Your task to perform on an android device: What's the weather going to be tomorrow? Image 0: 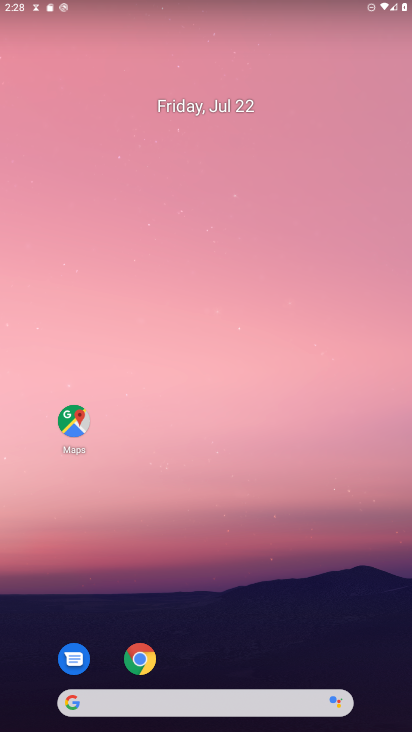
Step 0: drag from (303, 600) to (223, 56)
Your task to perform on an android device: What's the weather going to be tomorrow? Image 1: 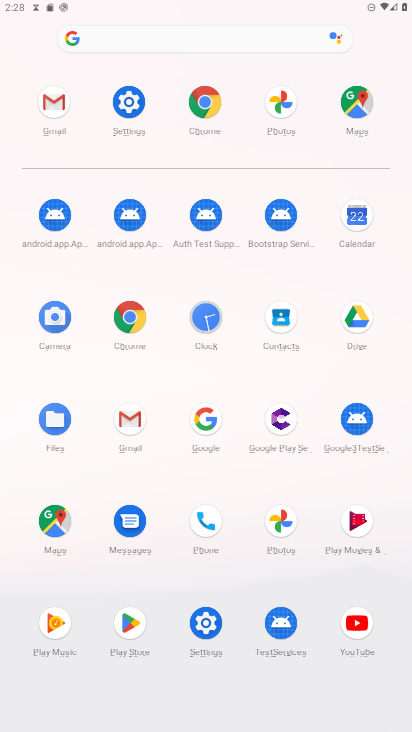
Step 1: click (353, 225)
Your task to perform on an android device: What's the weather going to be tomorrow? Image 2: 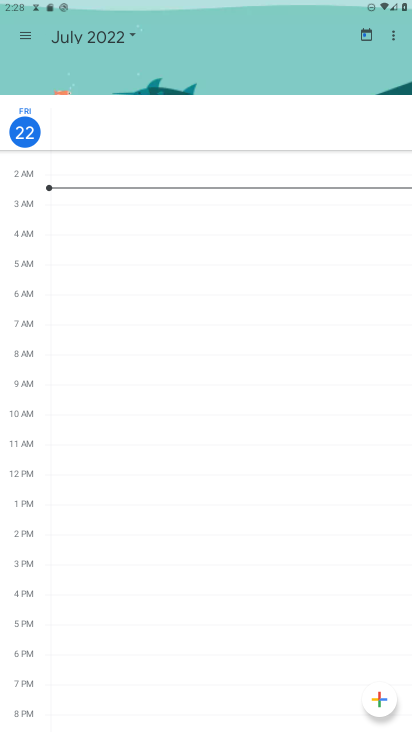
Step 2: click (92, 38)
Your task to perform on an android device: What's the weather going to be tomorrow? Image 3: 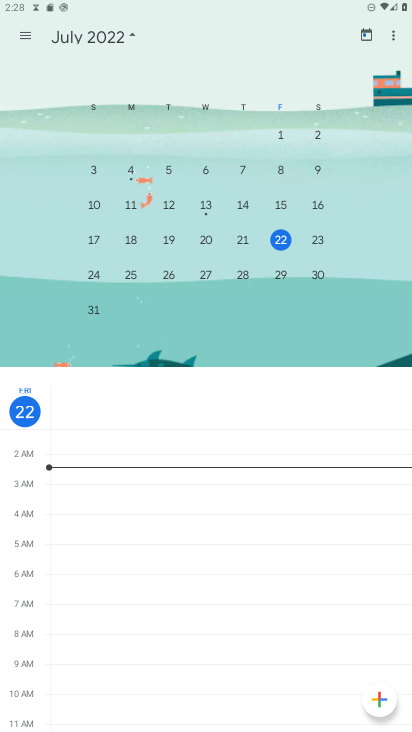
Step 3: click (316, 245)
Your task to perform on an android device: What's the weather going to be tomorrow? Image 4: 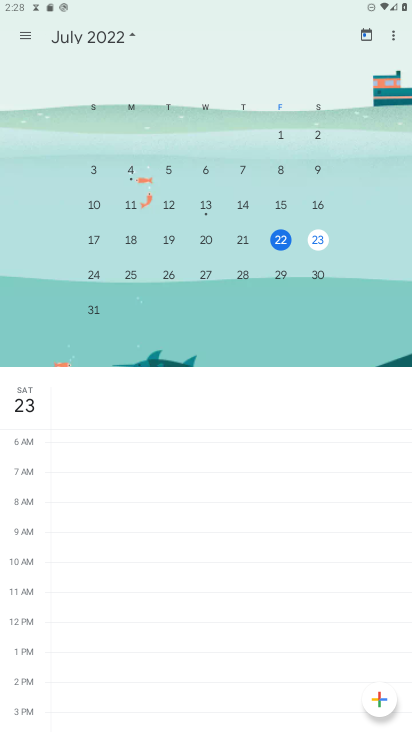
Step 4: task complete